Your task to perform on an android device: Open calendar and show me the third week of next month Image 0: 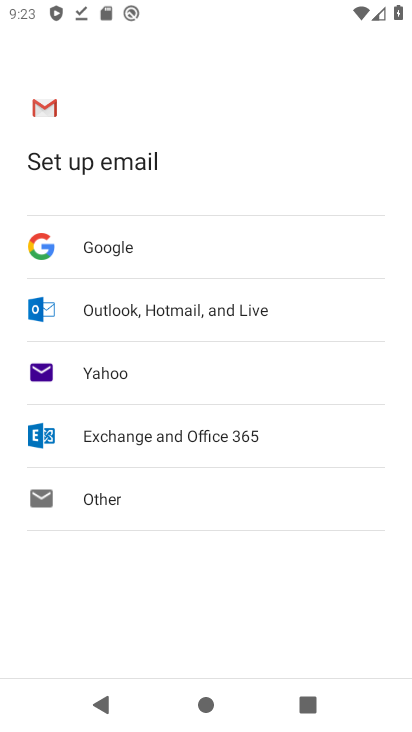
Step 0: press home button
Your task to perform on an android device: Open calendar and show me the third week of next month Image 1: 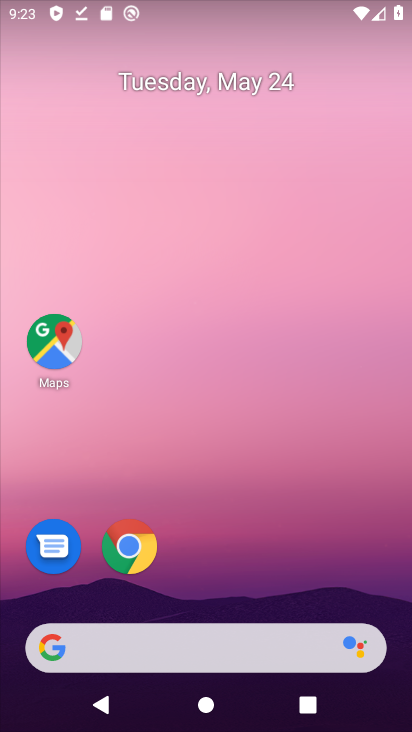
Step 1: drag from (259, 560) to (174, 140)
Your task to perform on an android device: Open calendar and show me the third week of next month Image 2: 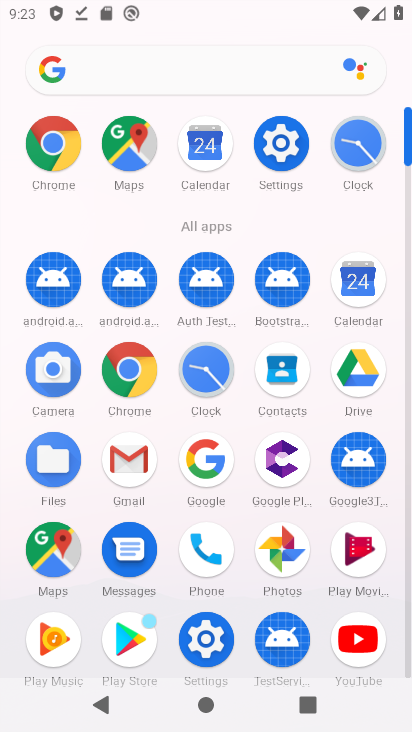
Step 2: click (361, 274)
Your task to perform on an android device: Open calendar and show me the third week of next month Image 3: 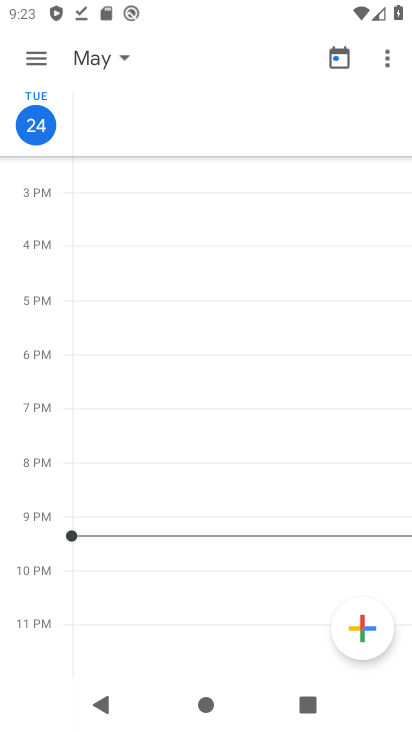
Step 3: click (43, 54)
Your task to perform on an android device: Open calendar and show me the third week of next month Image 4: 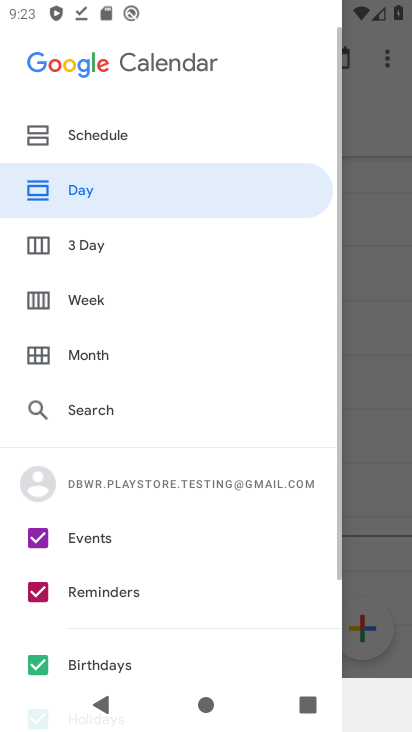
Step 4: click (77, 298)
Your task to perform on an android device: Open calendar and show me the third week of next month Image 5: 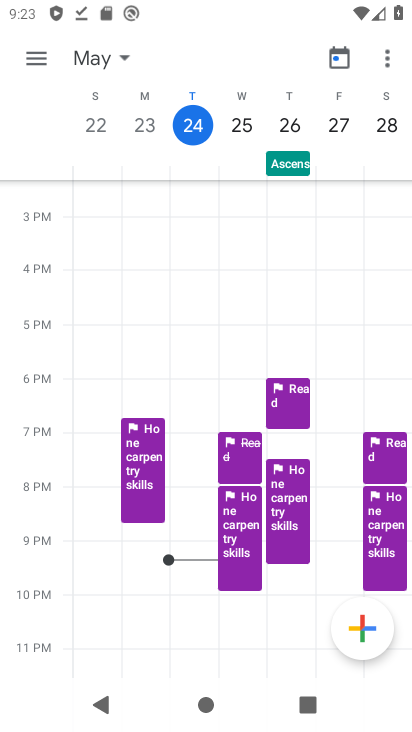
Step 5: click (124, 58)
Your task to perform on an android device: Open calendar and show me the third week of next month Image 6: 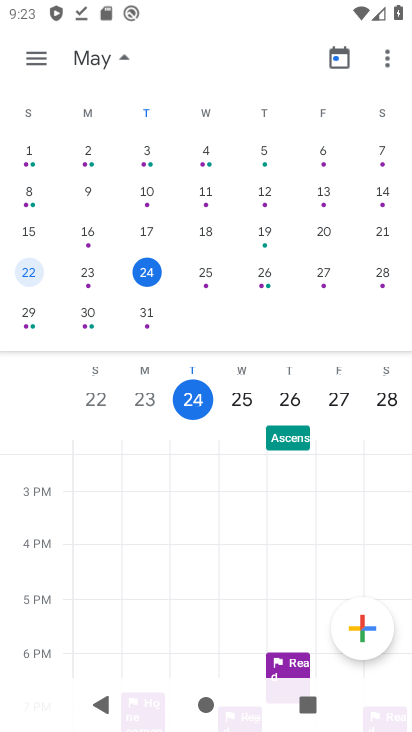
Step 6: drag from (338, 208) to (3, 200)
Your task to perform on an android device: Open calendar and show me the third week of next month Image 7: 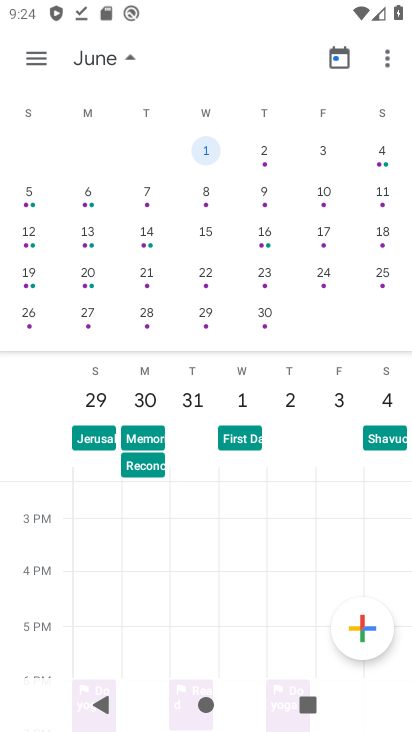
Step 7: click (210, 228)
Your task to perform on an android device: Open calendar and show me the third week of next month Image 8: 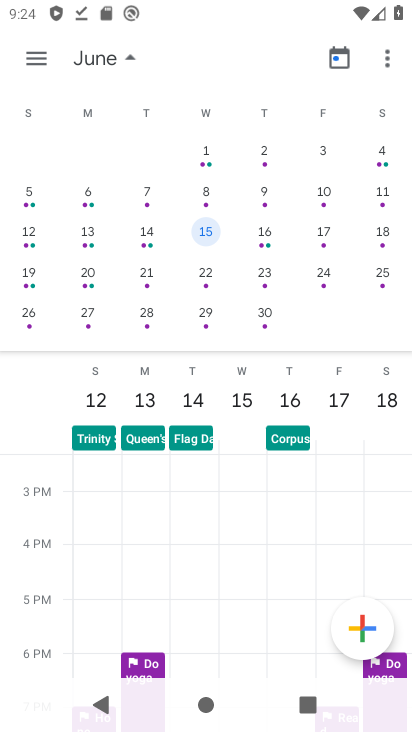
Step 8: task complete